Your task to perform on an android device: set default search engine in the chrome app Image 0: 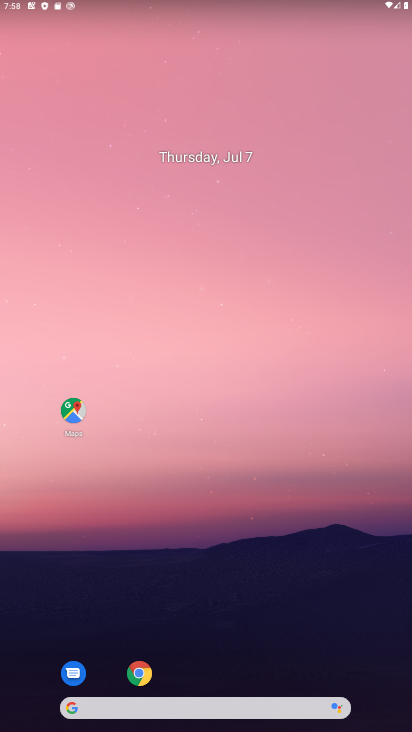
Step 0: drag from (226, 555) to (202, 0)
Your task to perform on an android device: set default search engine in the chrome app Image 1: 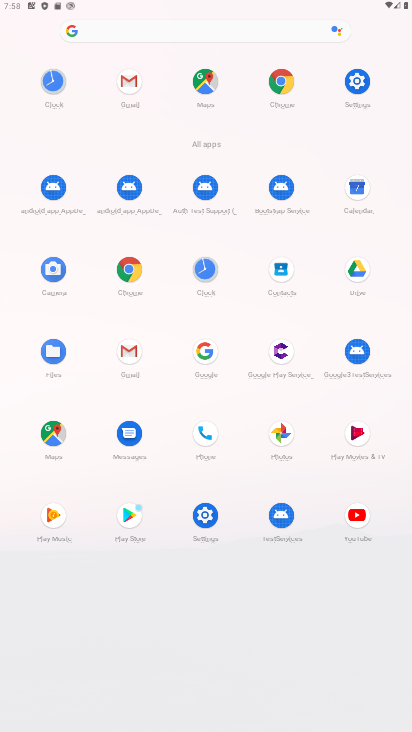
Step 1: click (280, 90)
Your task to perform on an android device: set default search engine in the chrome app Image 2: 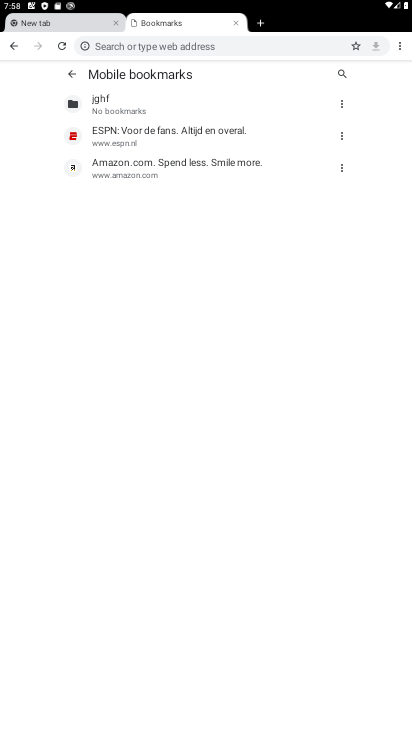
Step 2: press back button
Your task to perform on an android device: set default search engine in the chrome app Image 3: 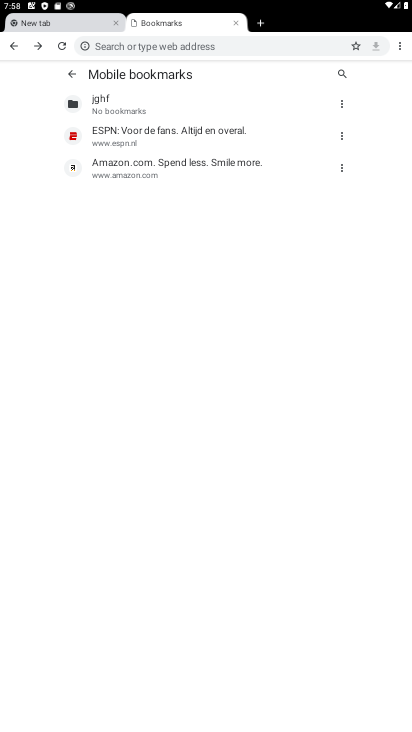
Step 3: click (397, 47)
Your task to perform on an android device: set default search engine in the chrome app Image 4: 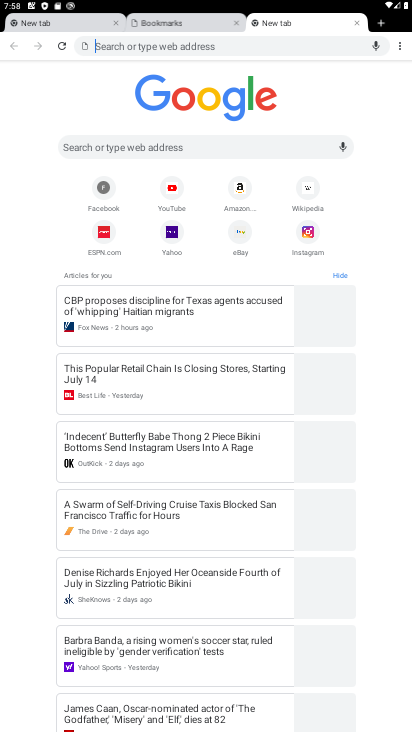
Step 4: drag from (397, 47) to (319, 209)
Your task to perform on an android device: set default search engine in the chrome app Image 5: 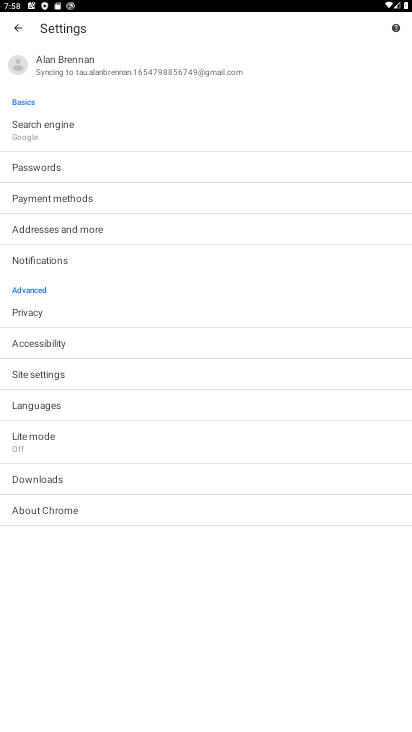
Step 5: click (45, 137)
Your task to perform on an android device: set default search engine in the chrome app Image 6: 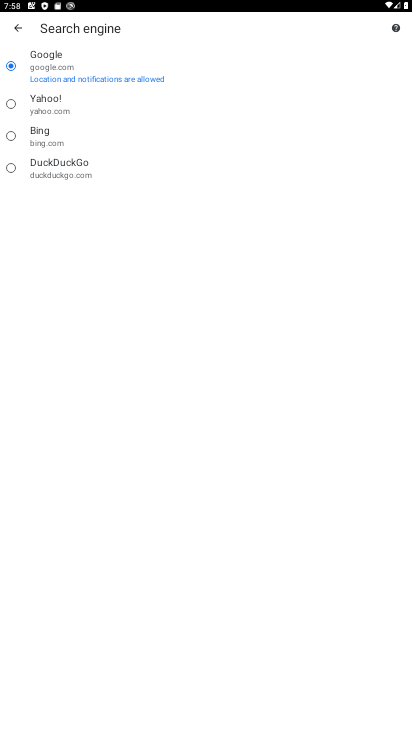
Step 6: task complete